Your task to perform on an android device: Open battery settings Image 0: 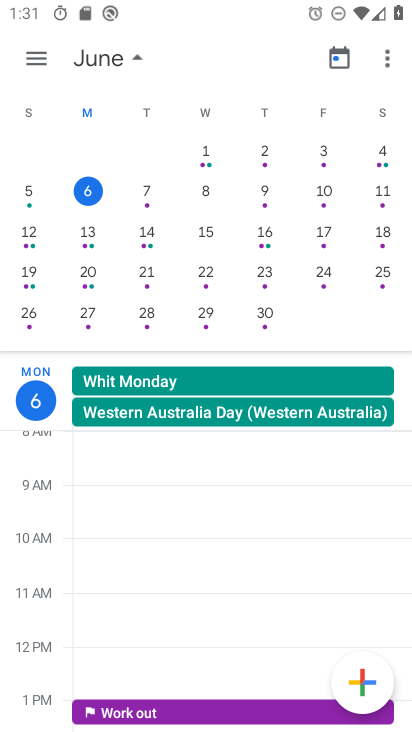
Step 0: press home button
Your task to perform on an android device: Open battery settings Image 1: 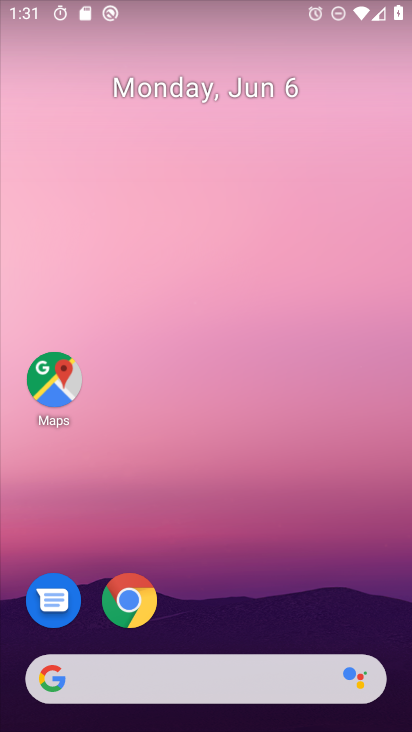
Step 1: drag from (203, 616) to (216, 215)
Your task to perform on an android device: Open battery settings Image 2: 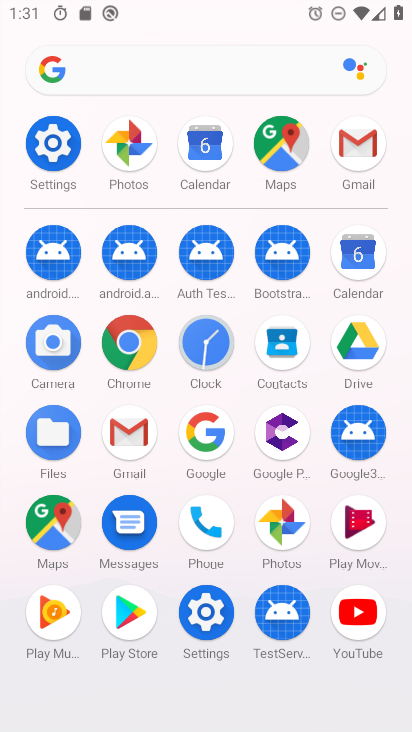
Step 2: click (64, 146)
Your task to perform on an android device: Open battery settings Image 3: 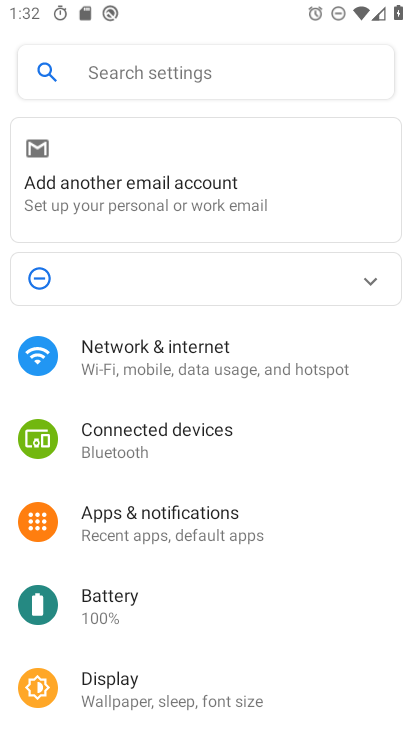
Step 3: click (165, 613)
Your task to perform on an android device: Open battery settings Image 4: 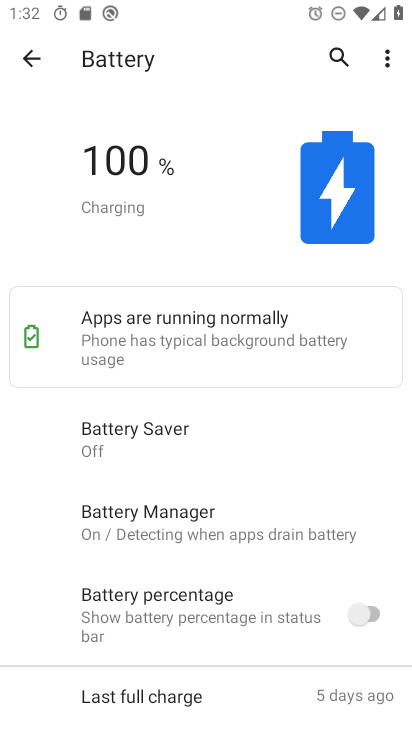
Step 4: task complete